Your task to perform on an android device: Search for the best rated mechanical keyboard on Amazon. Image 0: 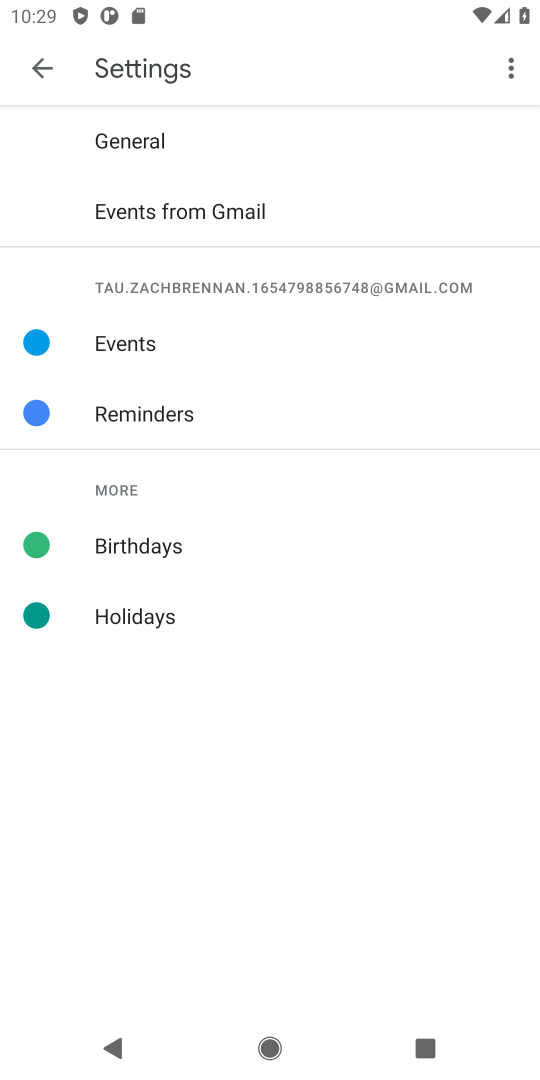
Step 0: press home button
Your task to perform on an android device: Search for the best rated mechanical keyboard on Amazon. Image 1: 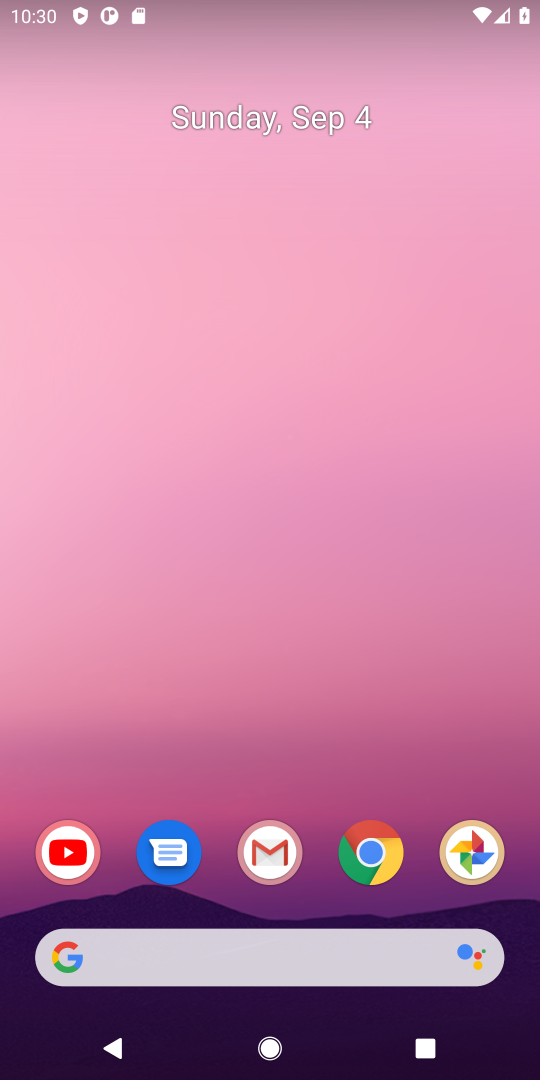
Step 1: drag from (439, 672) to (281, 67)
Your task to perform on an android device: Search for the best rated mechanical keyboard on Amazon. Image 2: 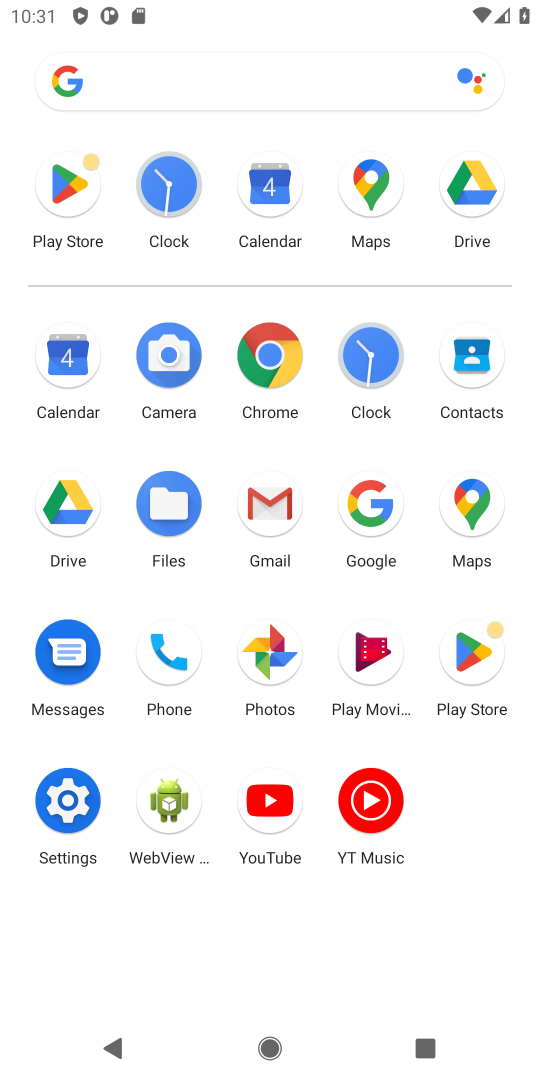
Step 2: click (385, 512)
Your task to perform on an android device: Search for the best rated mechanical keyboard on Amazon. Image 3: 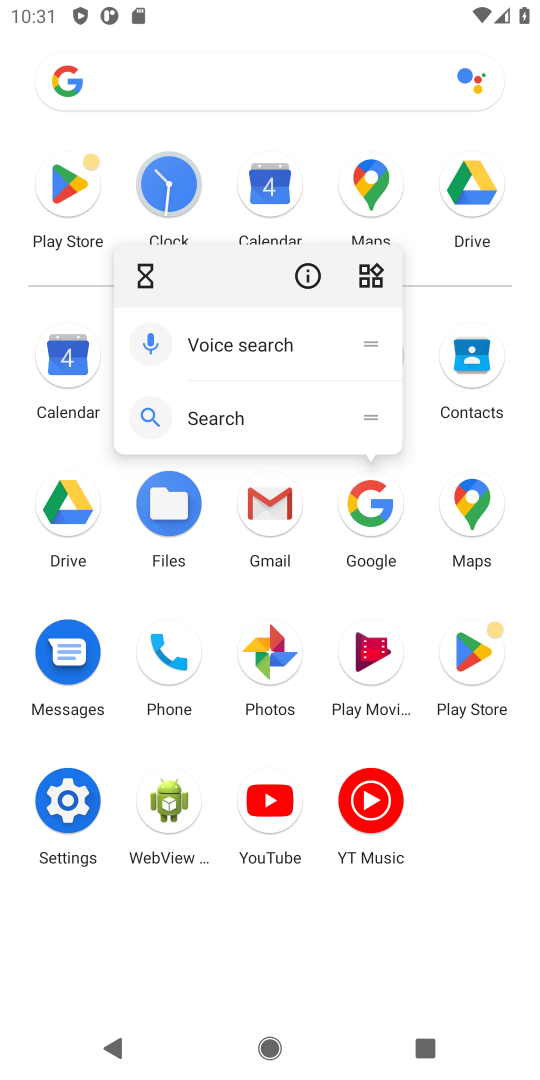
Step 3: click (385, 512)
Your task to perform on an android device: Search for the best rated mechanical keyboard on Amazon. Image 4: 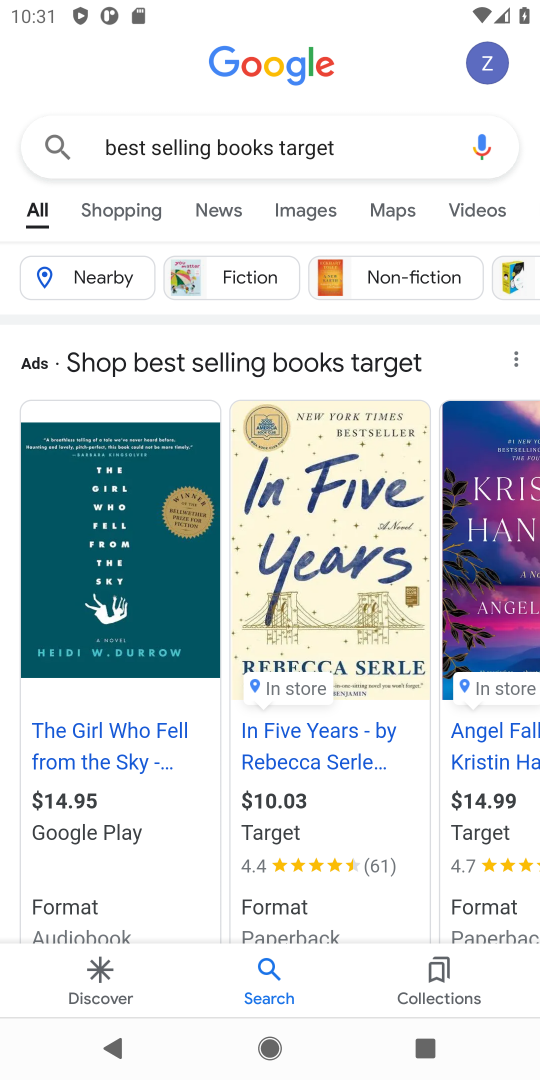
Step 4: press back button
Your task to perform on an android device: Search for the best rated mechanical keyboard on Amazon. Image 5: 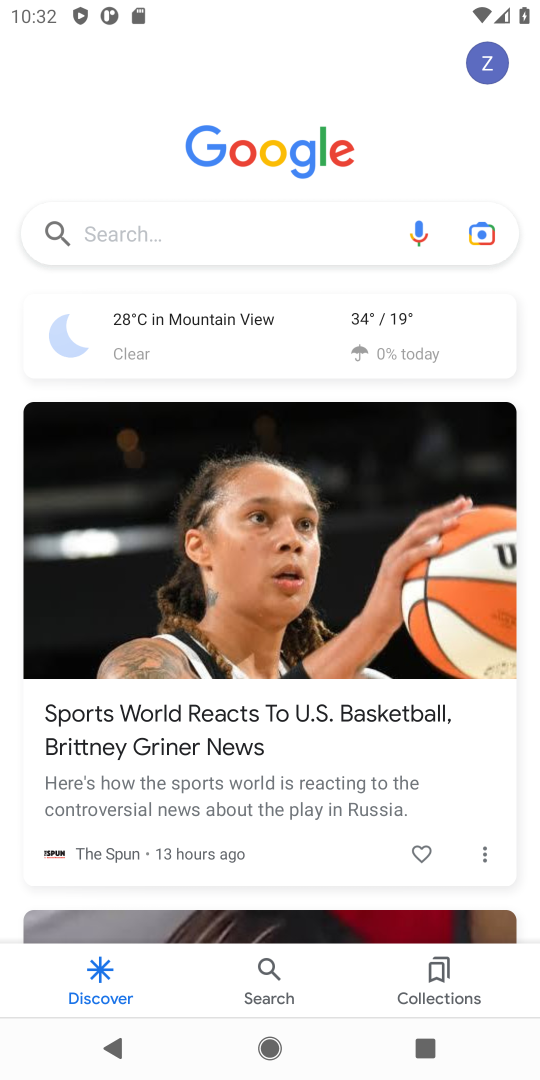
Step 5: click (124, 248)
Your task to perform on an android device: Search for the best rated mechanical keyboard on Amazon. Image 6: 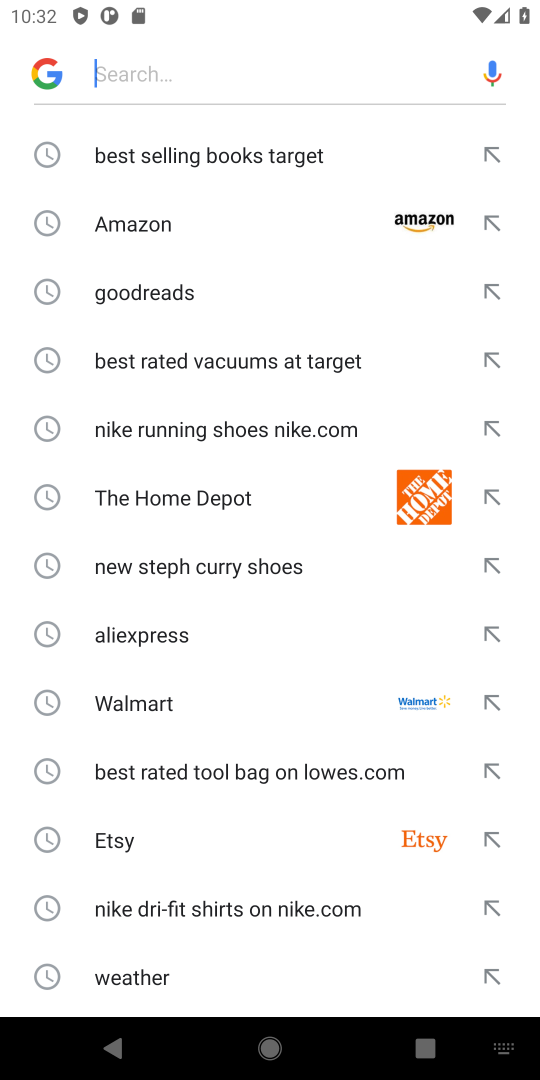
Step 6: click (180, 219)
Your task to perform on an android device: Search for the best rated mechanical keyboard on Amazon. Image 7: 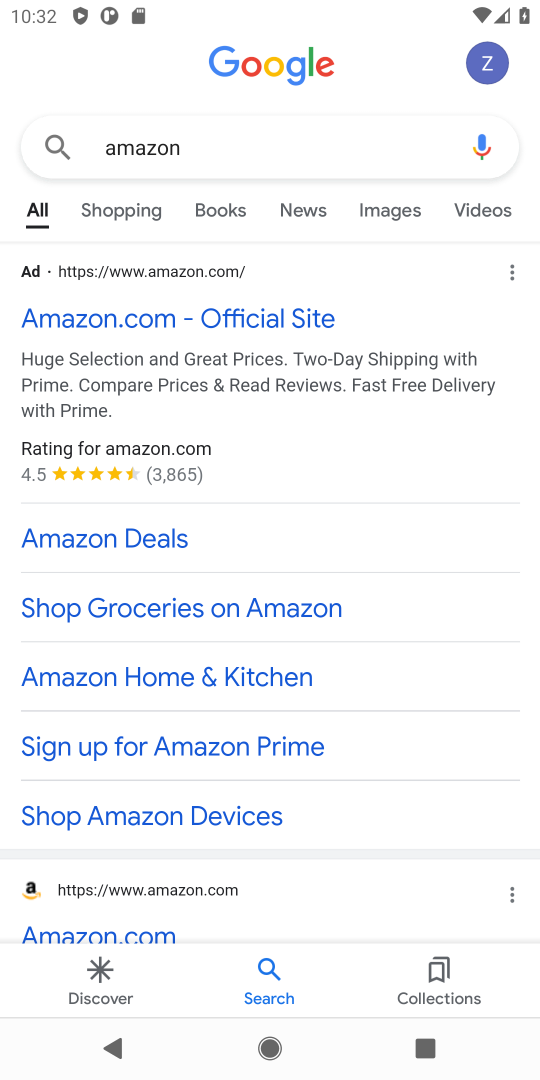
Step 7: click (152, 326)
Your task to perform on an android device: Search for the best rated mechanical keyboard on Amazon. Image 8: 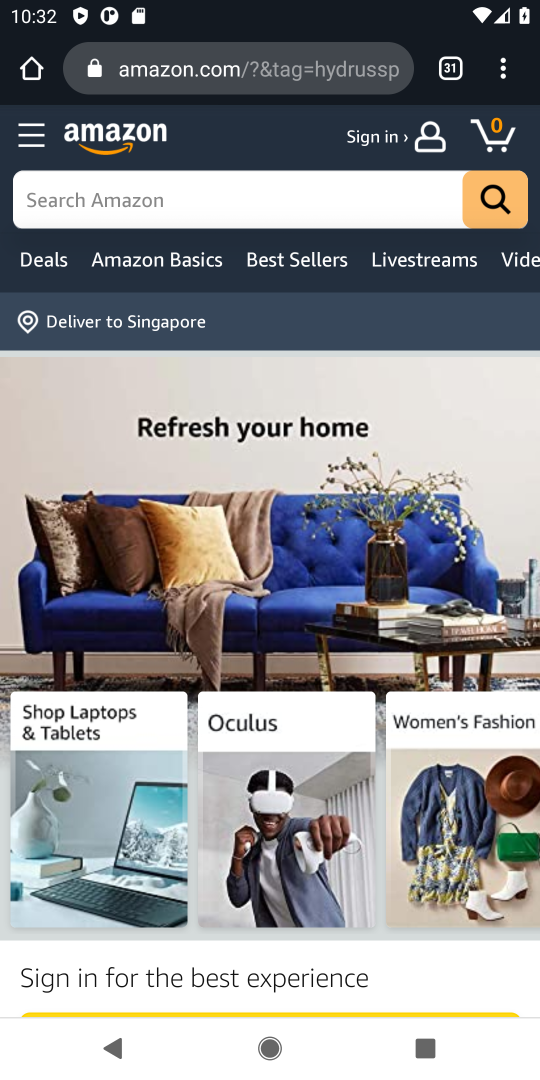
Step 8: click (178, 207)
Your task to perform on an android device: Search for the best rated mechanical keyboard on Amazon. Image 9: 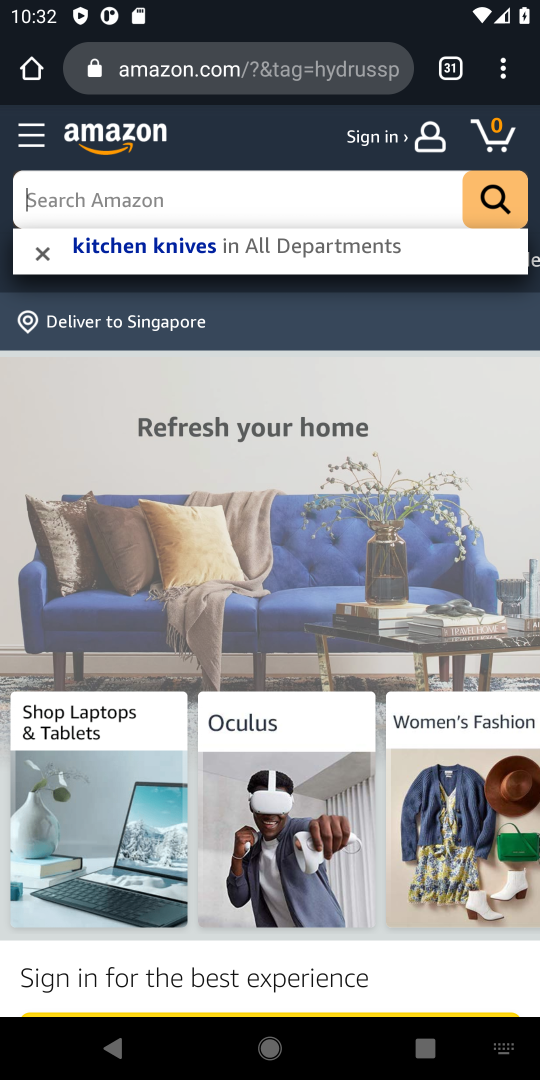
Step 9: type "mechanical keyboard"
Your task to perform on an android device: Search for the best rated mechanical keyboard on Amazon. Image 10: 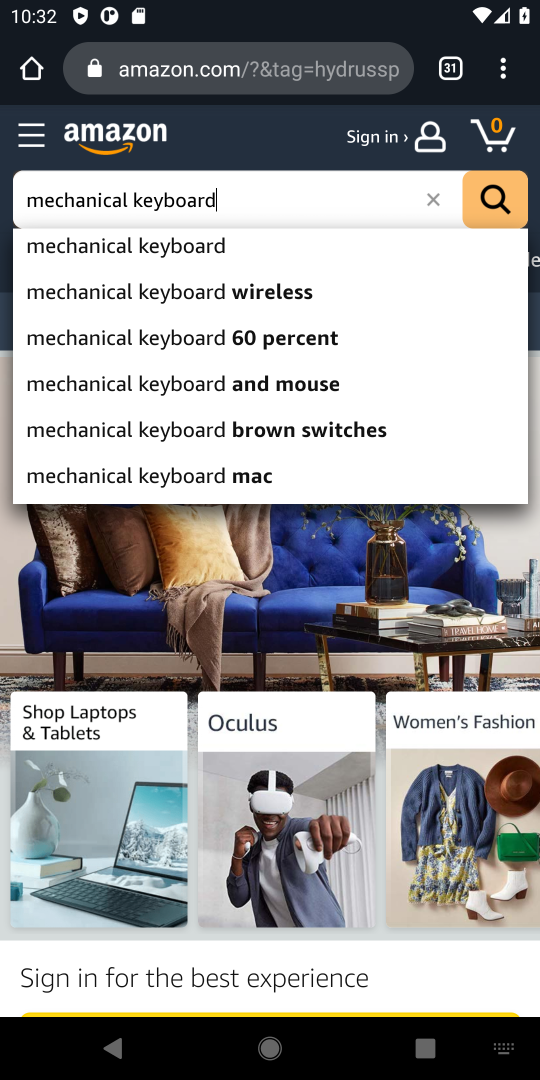
Step 10: click (179, 254)
Your task to perform on an android device: Search for the best rated mechanical keyboard on Amazon. Image 11: 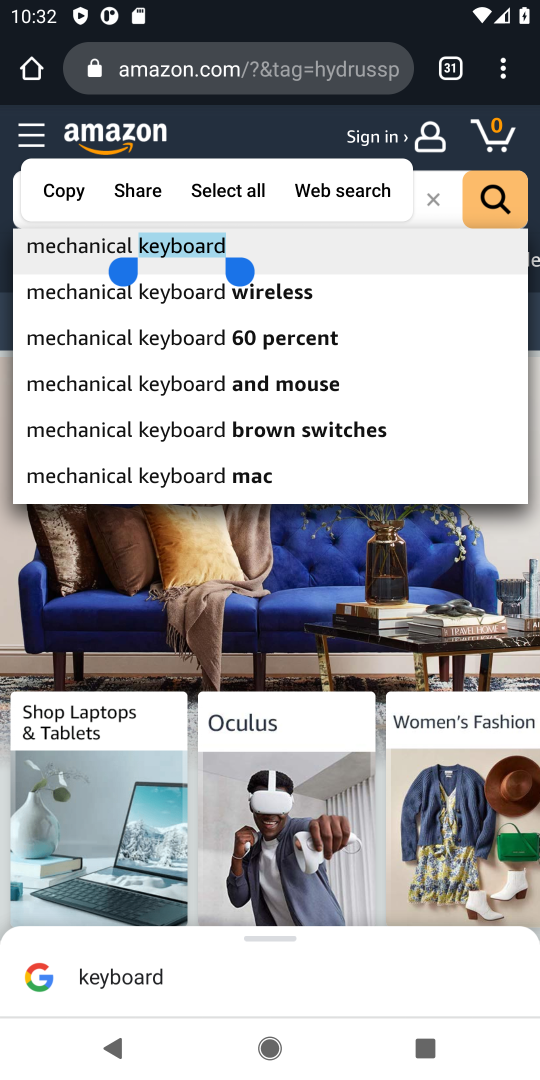
Step 11: click (179, 254)
Your task to perform on an android device: Search for the best rated mechanical keyboard on Amazon. Image 12: 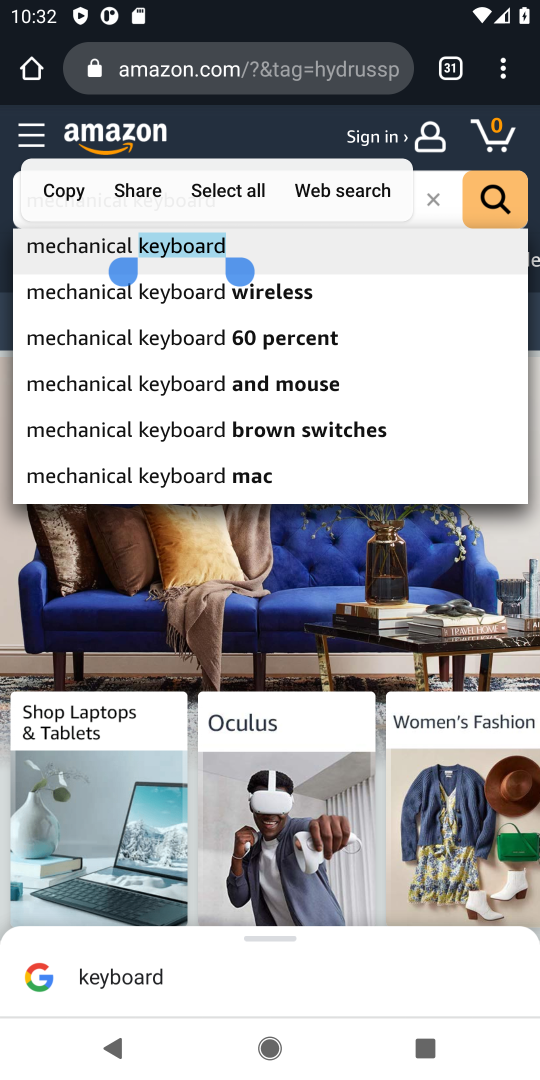
Step 12: click (119, 248)
Your task to perform on an android device: Search for the best rated mechanical keyboard on Amazon. Image 13: 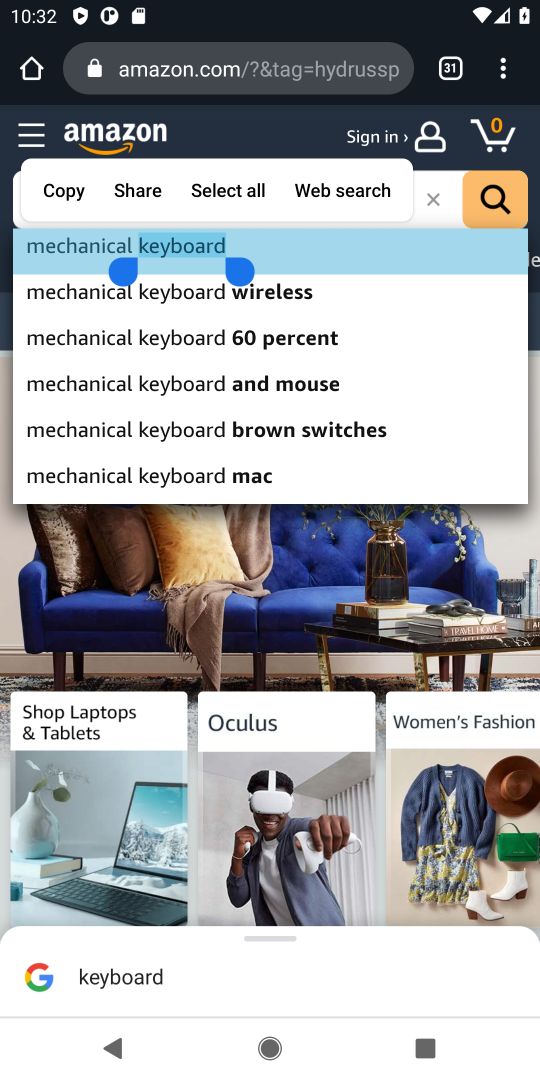
Step 13: click (482, 198)
Your task to perform on an android device: Search for the best rated mechanical keyboard on Amazon. Image 14: 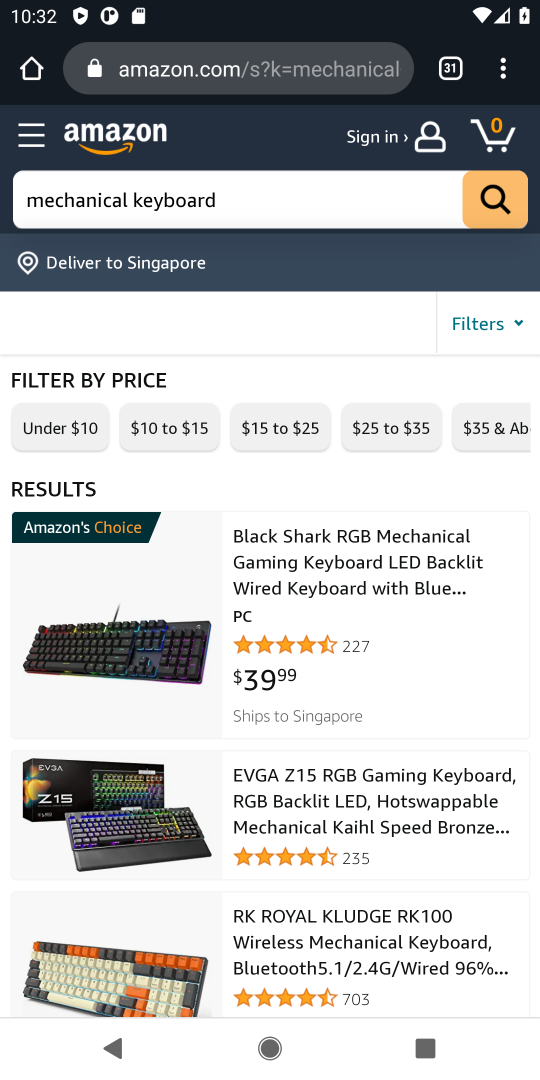
Step 14: task complete